Your task to perform on an android device: change notification settings in the gmail app Image 0: 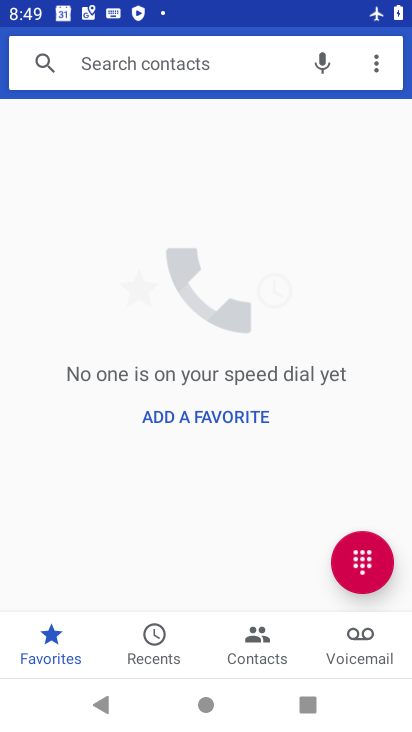
Step 0: press home button
Your task to perform on an android device: change notification settings in the gmail app Image 1: 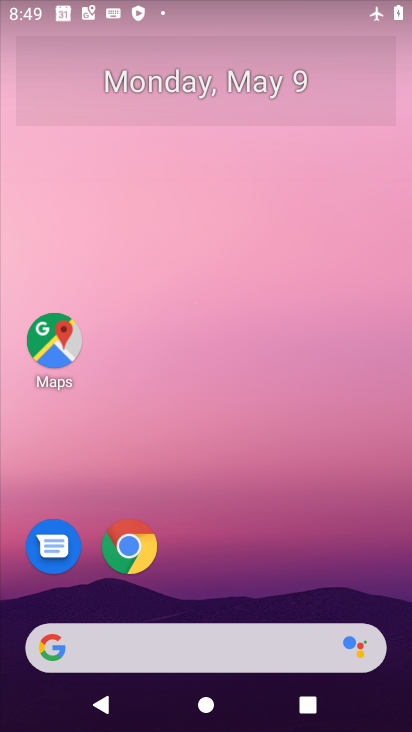
Step 1: drag from (259, 679) to (245, 322)
Your task to perform on an android device: change notification settings in the gmail app Image 2: 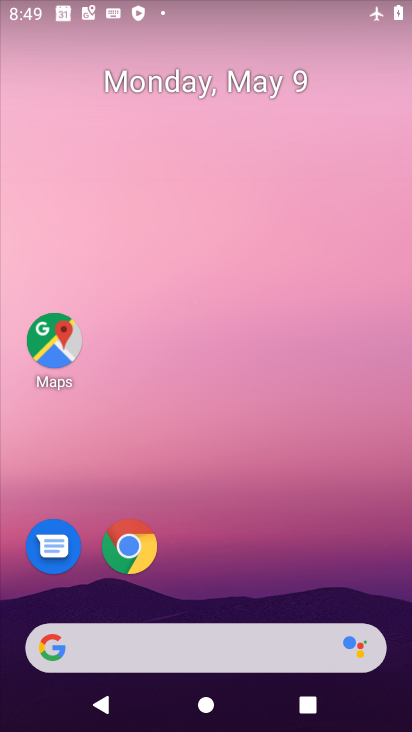
Step 2: drag from (238, 693) to (216, 379)
Your task to perform on an android device: change notification settings in the gmail app Image 3: 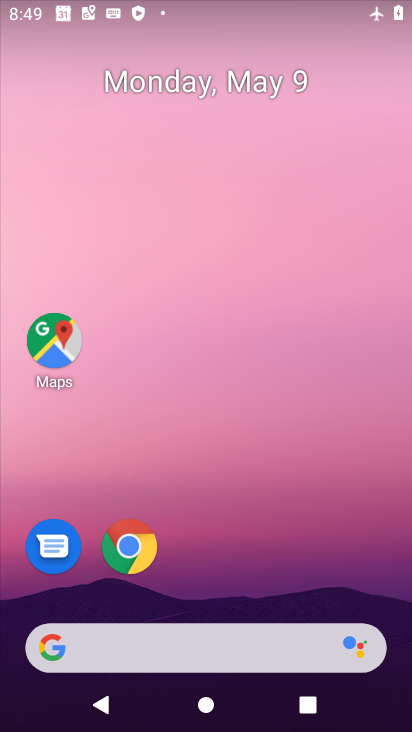
Step 3: drag from (244, 707) to (178, 158)
Your task to perform on an android device: change notification settings in the gmail app Image 4: 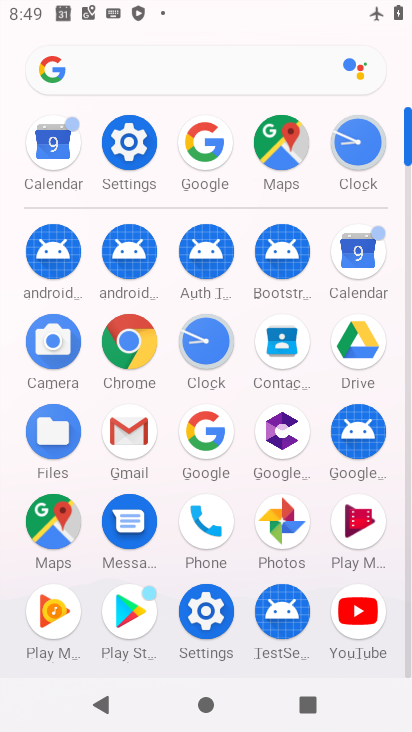
Step 4: click (133, 418)
Your task to perform on an android device: change notification settings in the gmail app Image 5: 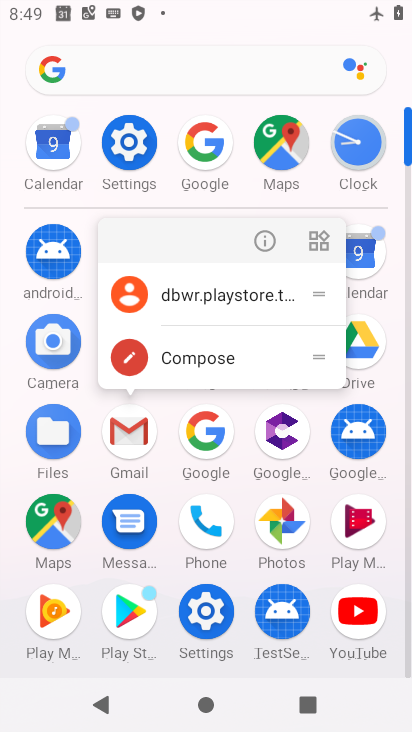
Step 5: click (267, 241)
Your task to perform on an android device: change notification settings in the gmail app Image 6: 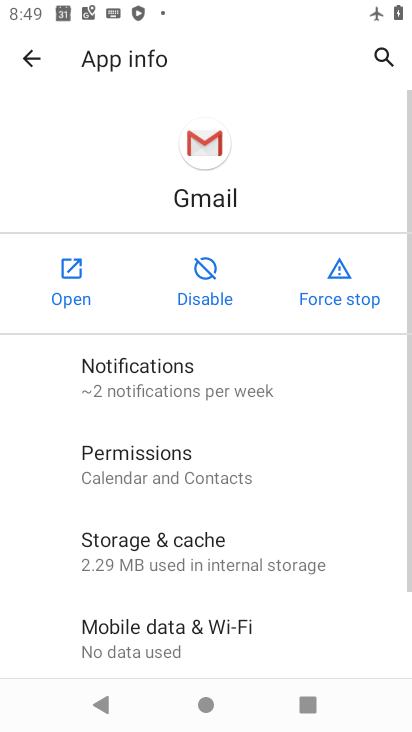
Step 6: click (200, 390)
Your task to perform on an android device: change notification settings in the gmail app Image 7: 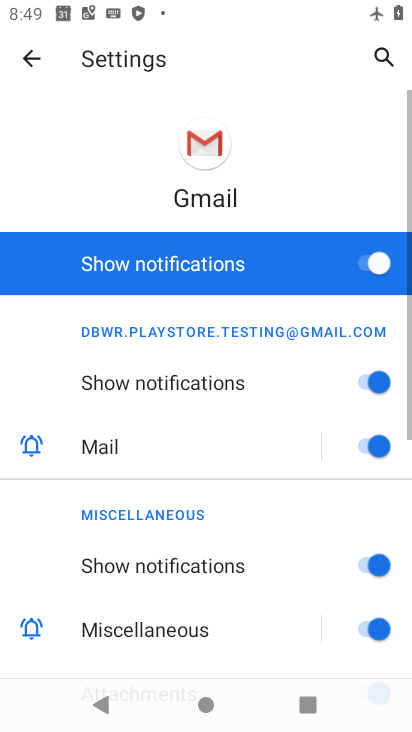
Step 7: click (377, 263)
Your task to perform on an android device: change notification settings in the gmail app Image 8: 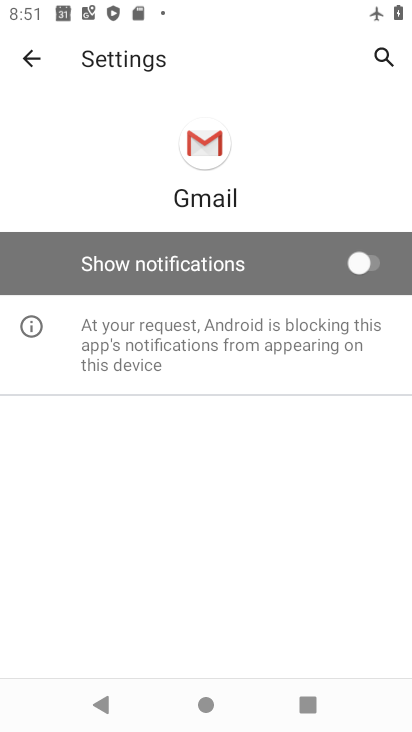
Step 8: task complete